Your task to perform on an android device: refresh tabs in the chrome app Image 0: 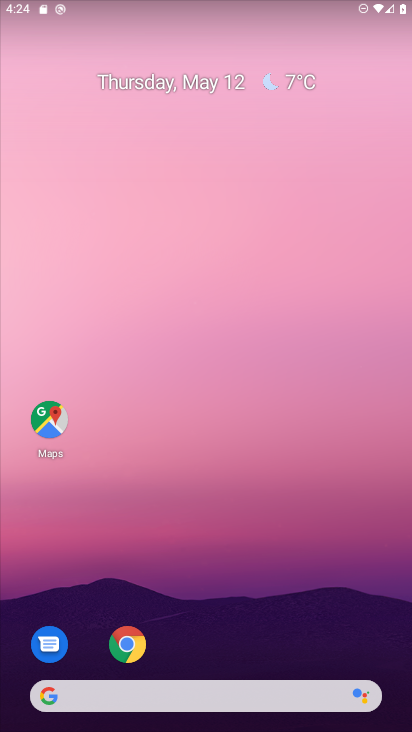
Step 0: click (126, 656)
Your task to perform on an android device: refresh tabs in the chrome app Image 1: 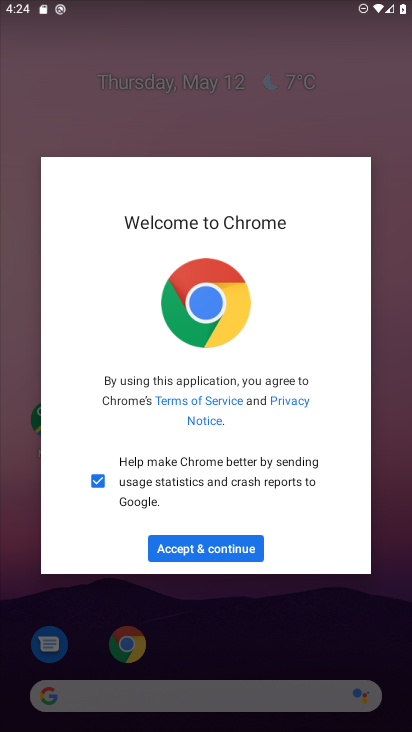
Step 1: click (193, 549)
Your task to perform on an android device: refresh tabs in the chrome app Image 2: 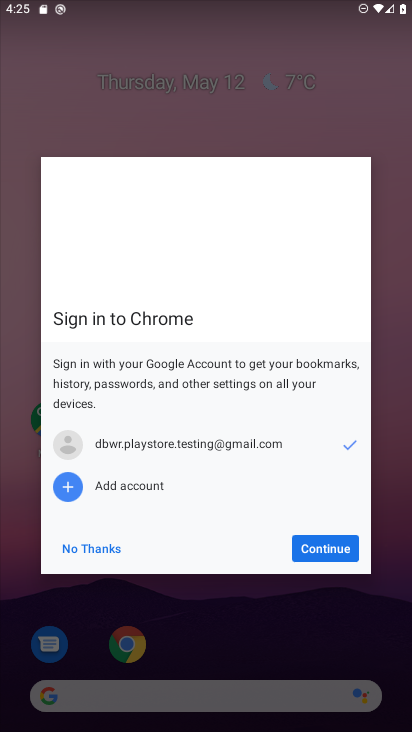
Step 2: click (346, 557)
Your task to perform on an android device: refresh tabs in the chrome app Image 3: 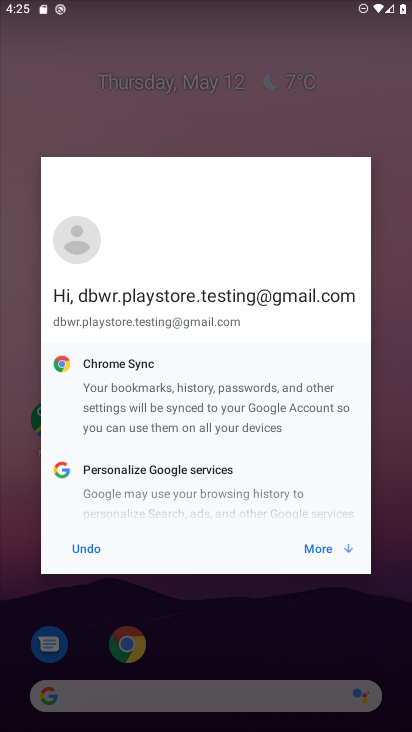
Step 3: click (333, 558)
Your task to perform on an android device: refresh tabs in the chrome app Image 4: 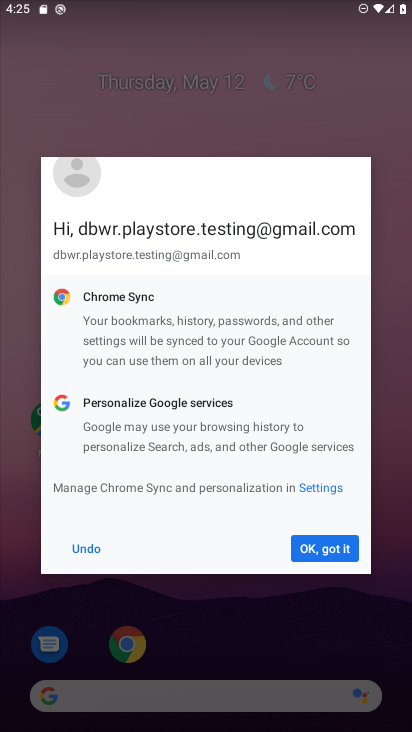
Step 4: click (333, 558)
Your task to perform on an android device: refresh tabs in the chrome app Image 5: 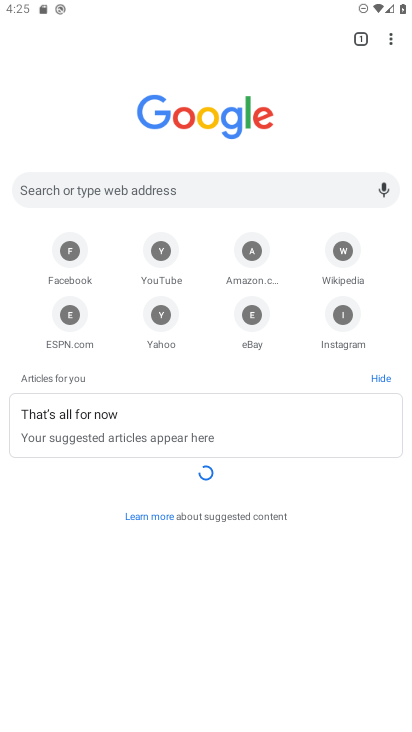
Step 5: click (397, 46)
Your task to perform on an android device: refresh tabs in the chrome app Image 6: 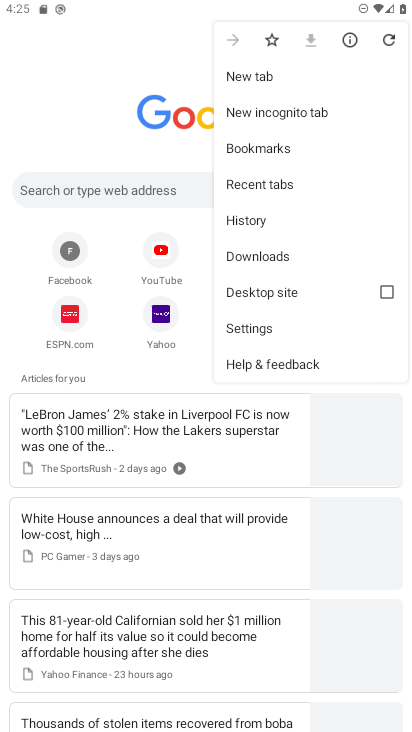
Step 6: click (384, 38)
Your task to perform on an android device: refresh tabs in the chrome app Image 7: 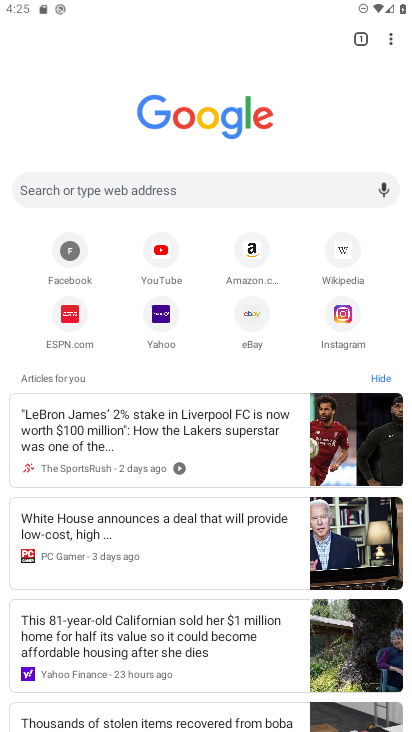
Step 7: task complete